Your task to perform on an android device: Play the last video I watched on Youtube Image 0: 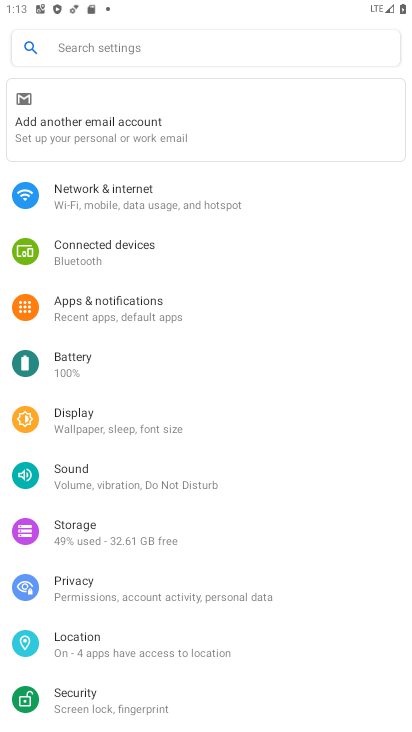
Step 0: press home button
Your task to perform on an android device: Play the last video I watched on Youtube Image 1: 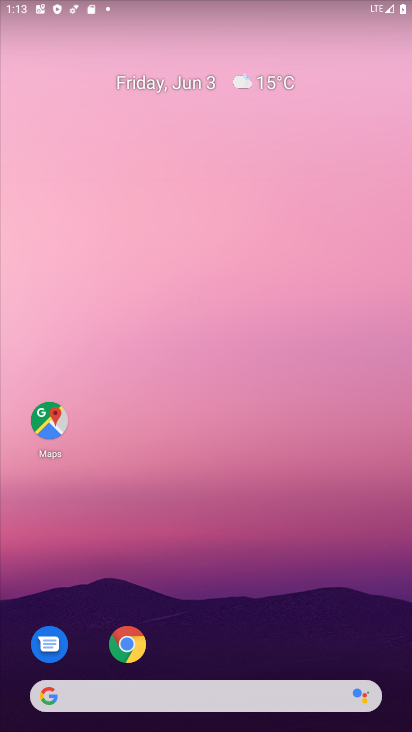
Step 1: drag from (213, 646) to (278, 106)
Your task to perform on an android device: Play the last video I watched on Youtube Image 2: 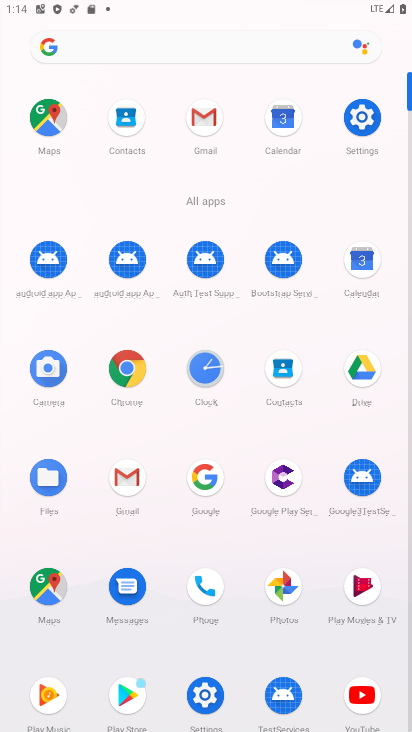
Step 2: click (371, 698)
Your task to perform on an android device: Play the last video I watched on Youtube Image 3: 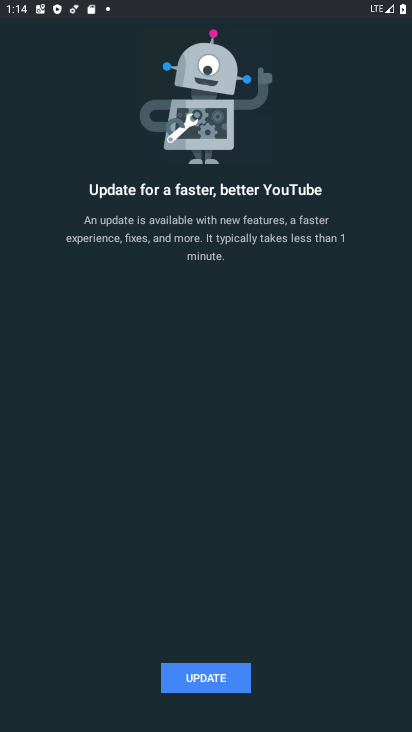
Step 3: click (234, 683)
Your task to perform on an android device: Play the last video I watched on Youtube Image 4: 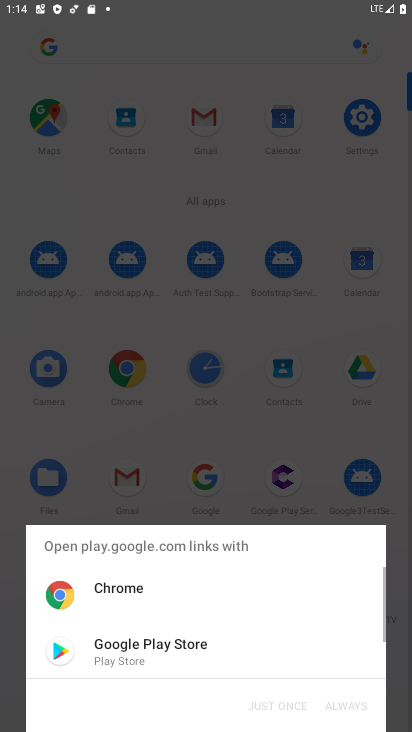
Step 4: click (142, 645)
Your task to perform on an android device: Play the last video I watched on Youtube Image 5: 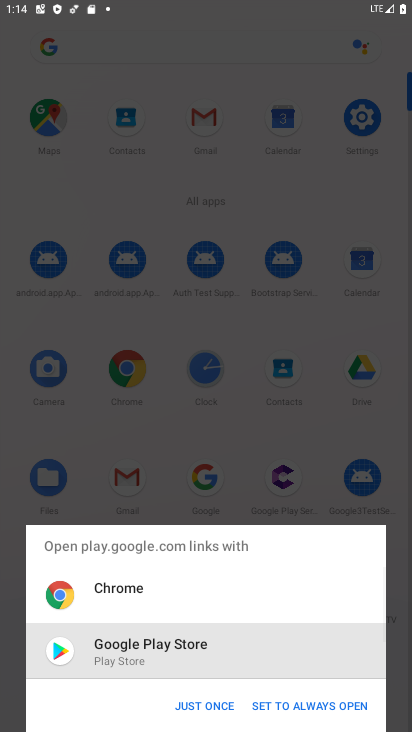
Step 5: click (195, 712)
Your task to perform on an android device: Play the last video I watched on Youtube Image 6: 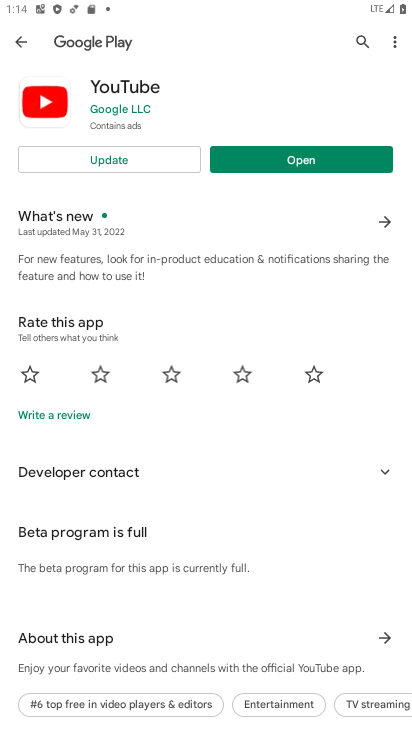
Step 6: click (105, 149)
Your task to perform on an android device: Play the last video I watched on Youtube Image 7: 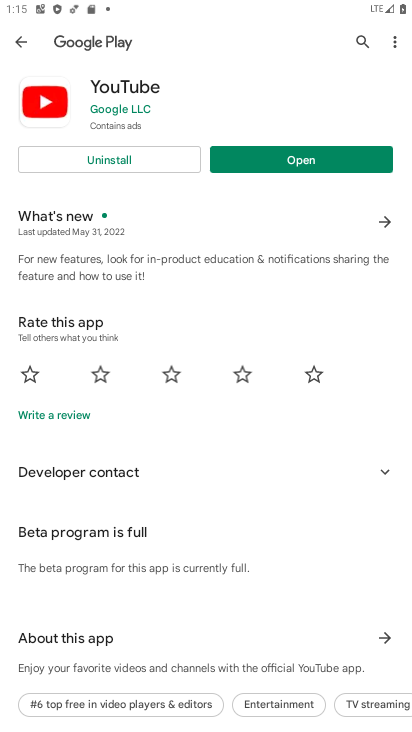
Step 7: click (297, 156)
Your task to perform on an android device: Play the last video I watched on Youtube Image 8: 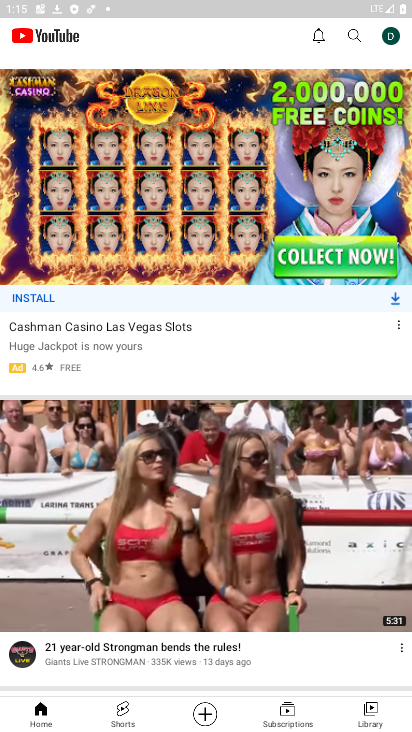
Step 8: click (378, 722)
Your task to perform on an android device: Play the last video I watched on Youtube Image 9: 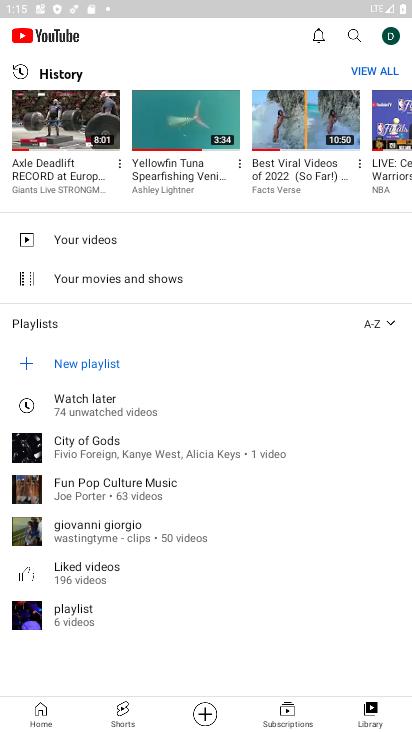
Step 9: task complete